Your task to perform on an android device: check battery use Image 0: 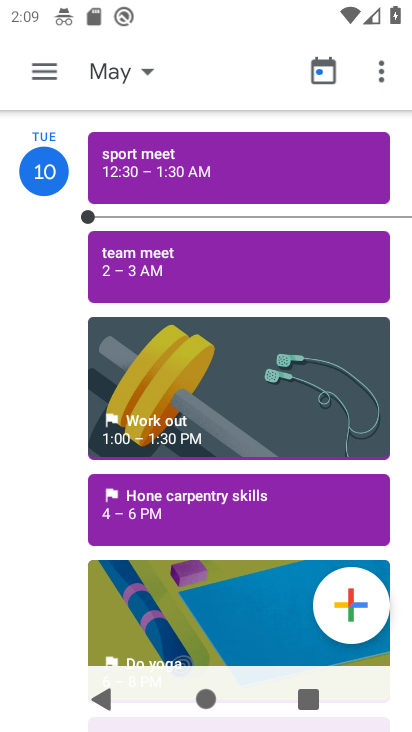
Step 0: press home button
Your task to perform on an android device: check battery use Image 1: 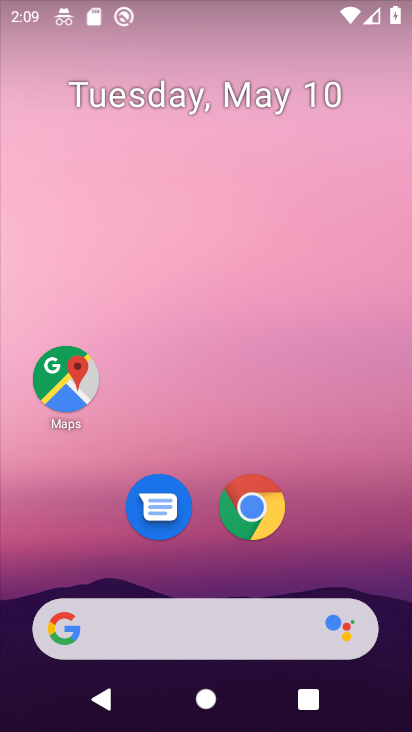
Step 1: drag from (147, 549) to (147, 239)
Your task to perform on an android device: check battery use Image 2: 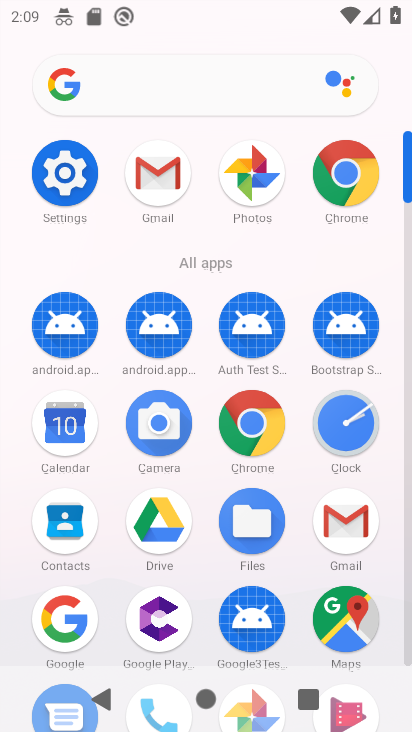
Step 2: click (69, 171)
Your task to perform on an android device: check battery use Image 3: 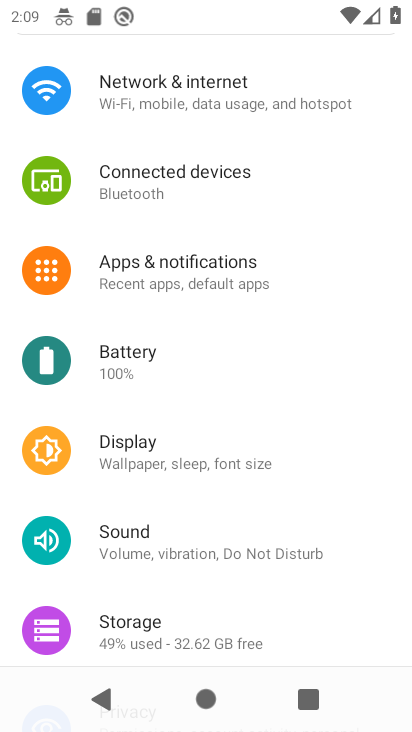
Step 3: click (134, 374)
Your task to perform on an android device: check battery use Image 4: 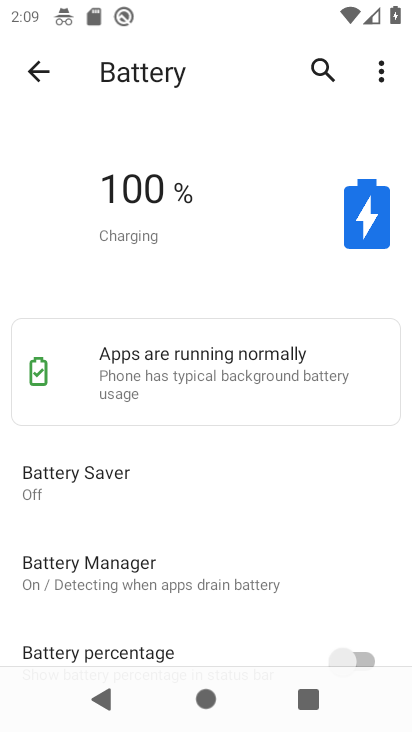
Step 4: task complete